Your task to perform on an android device: Check the weather Image 0: 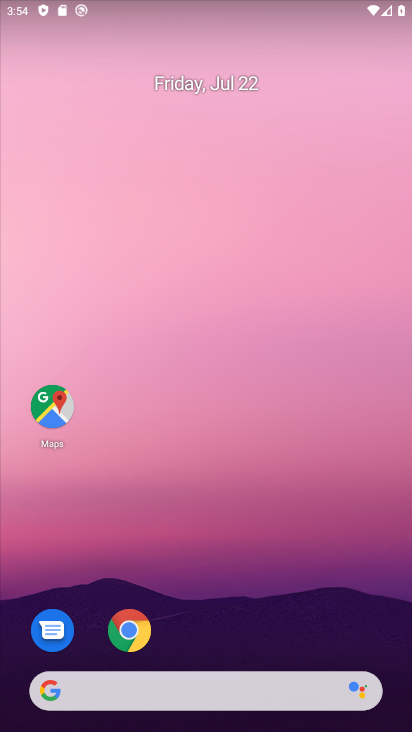
Step 0: click (138, 685)
Your task to perform on an android device: Check the weather Image 1: 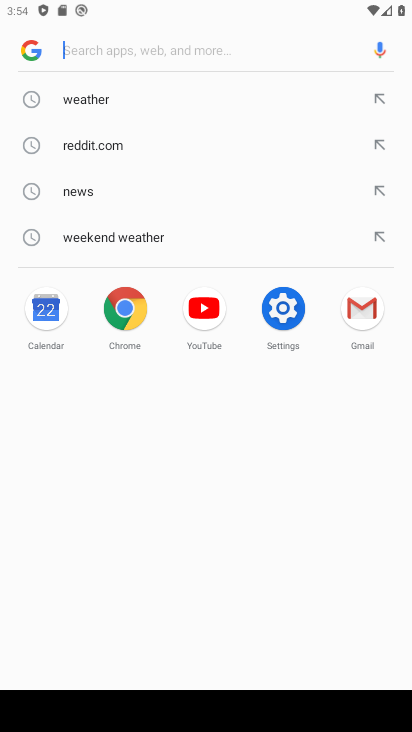
Step 1: click (97, 95)
Your task to perform on an android device: Check the weather Image 2: 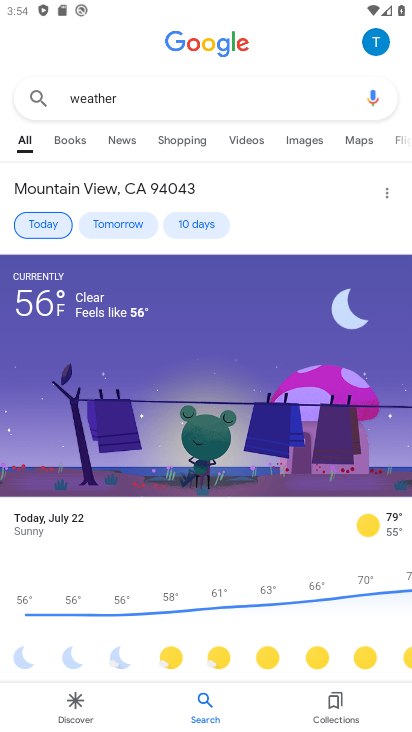
Step 2: task complete